Your task to perform on an android device: turn on data saver in the chrome app Image 0: 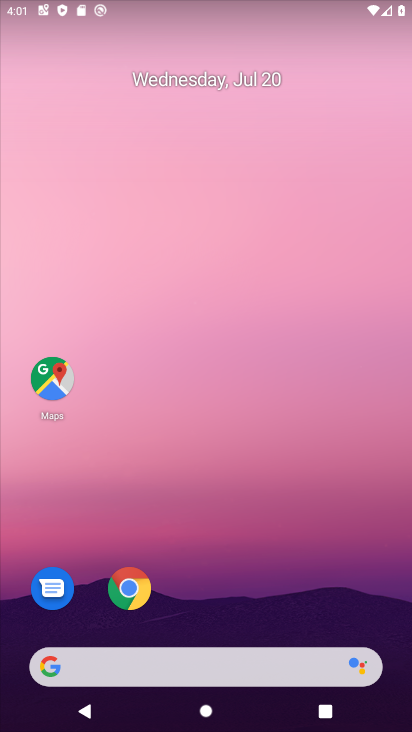
Step 0: drag from (255, 550) to (300, 2)
Your task to perform on an android device: turn on data saver in the chrome app Image 1: 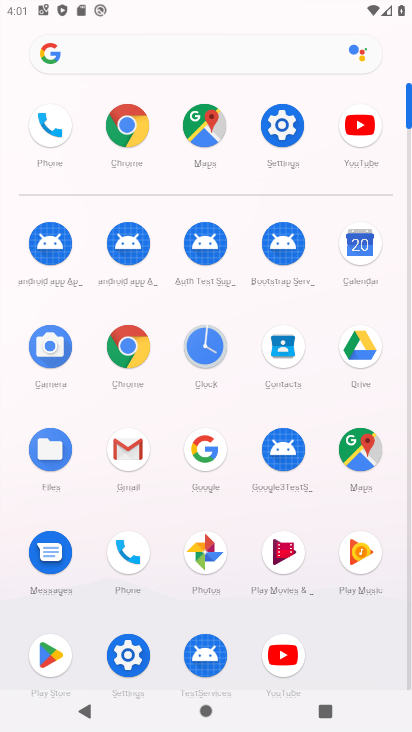
Step 1: click (119, 346)
Your task to perform on an android device: turn on data saver in the chrome app Image 2: 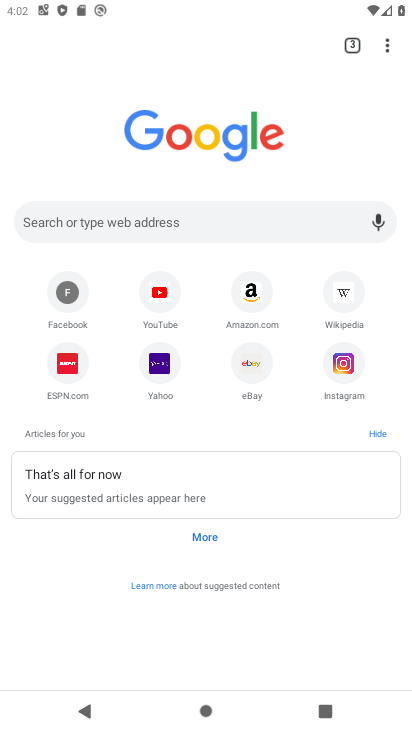
Step 2: drag from (390, 38) to (227, 388)
Your task to perform on an android device: turn on data saver in the chrome app Image 3: 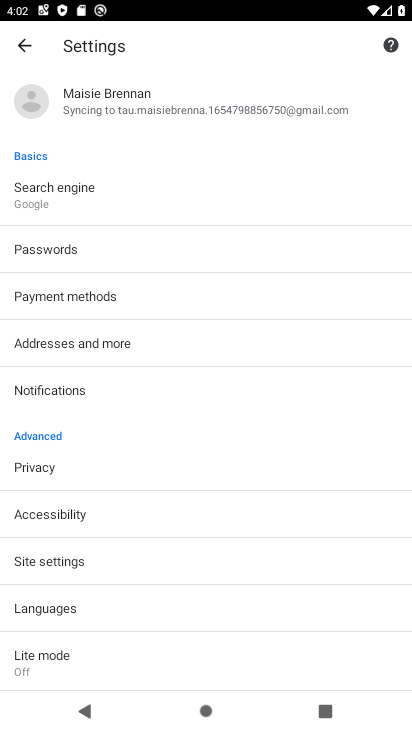
Step 3: click (48, 666)
Your task to perform on an android device: turn on data saver in the chrome app Image 4: 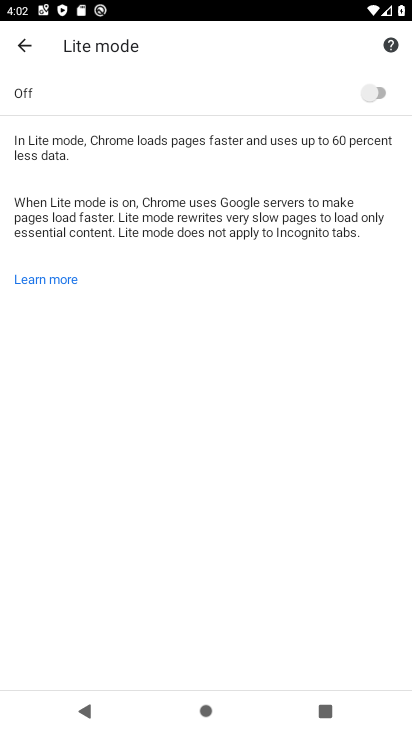
Step 4: click (358, 91)
Your task to perform on an android device: turn on data saver in the chrome app Image 5: 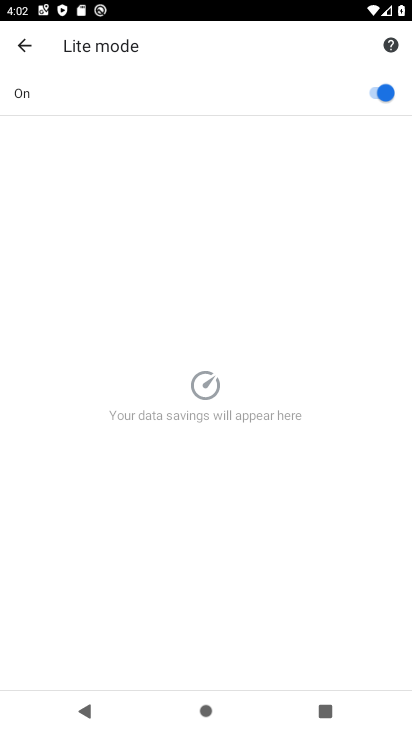
Step 5: task complete